Your task to perform on an android device: turn notification dots on Image 0: 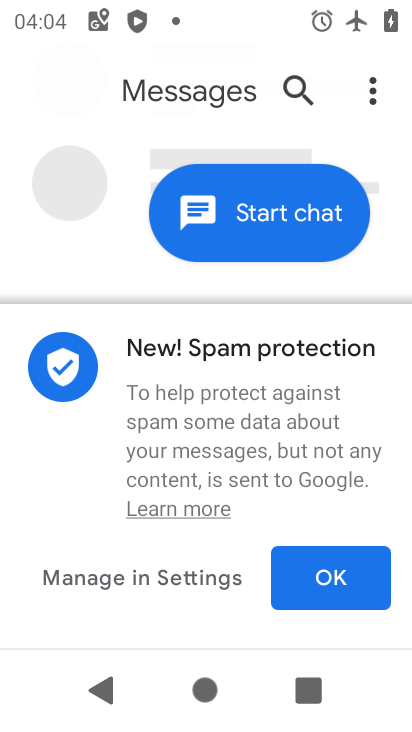
Step 0: press home button
Your task to perform on an android device: turn notification dots on Image 1: 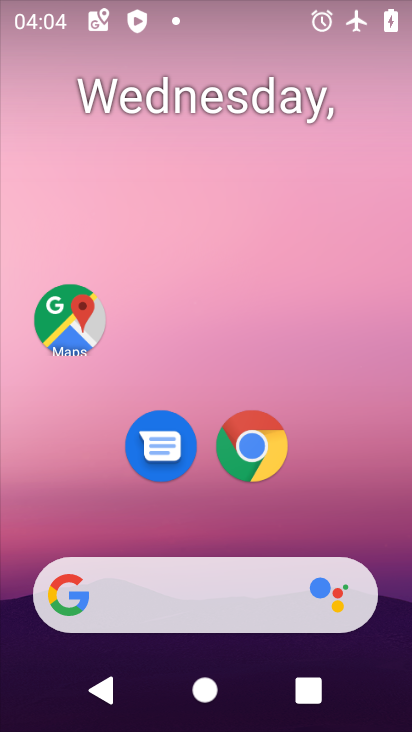
Step 1: drag from (216, 540) to (186, 168)
Your task to perform on an android device: turn notification dots on Image 2: 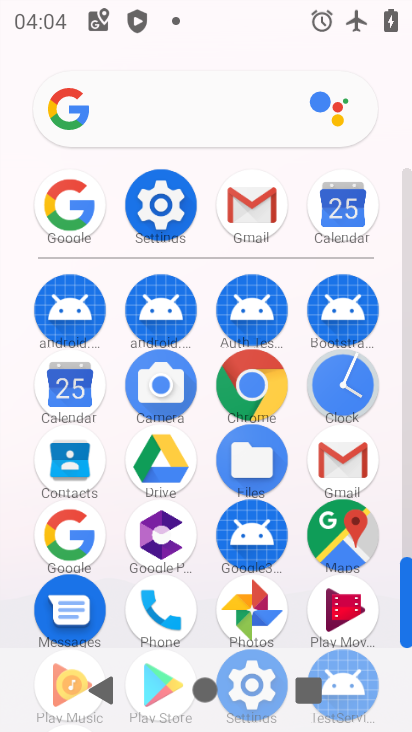
Step 2: click (168, 203)
Your task to perform on an android device: turn notification dots on Image 3: 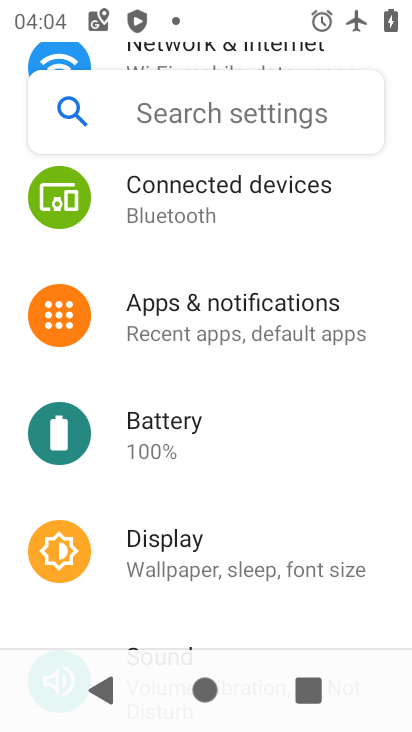
Step 3: click (221, 301)
Your task to perform on an android device: turn notification dots on Image 4: 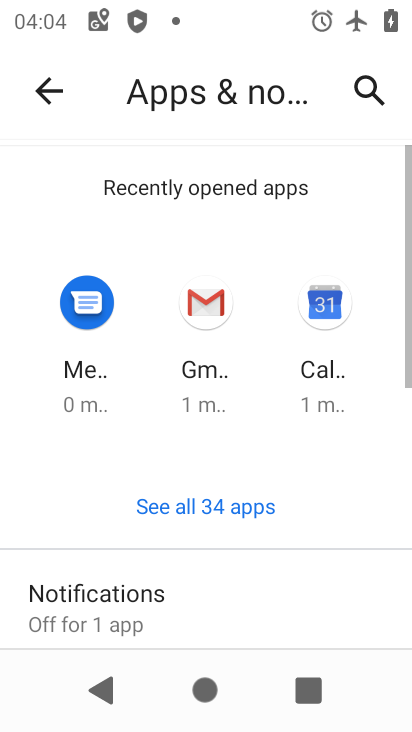
Step 4: click (209, 577)
Your task to perform on an android device: turn notification dots on Image 5: 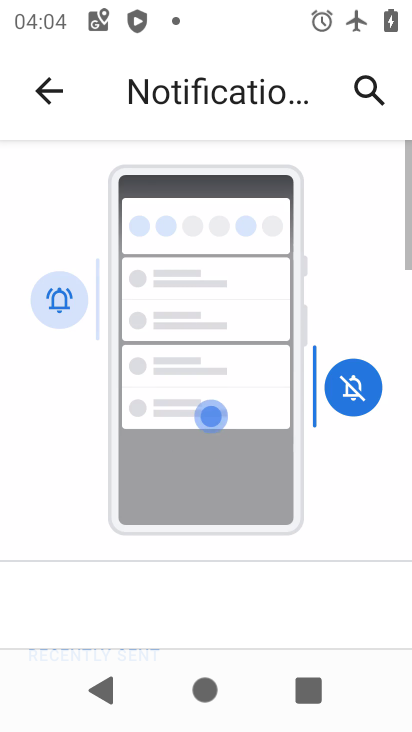
Step 5: drag from (207, 577) to (205, 266)
Your task to perform on an android device: turn notification dots on Image 6: 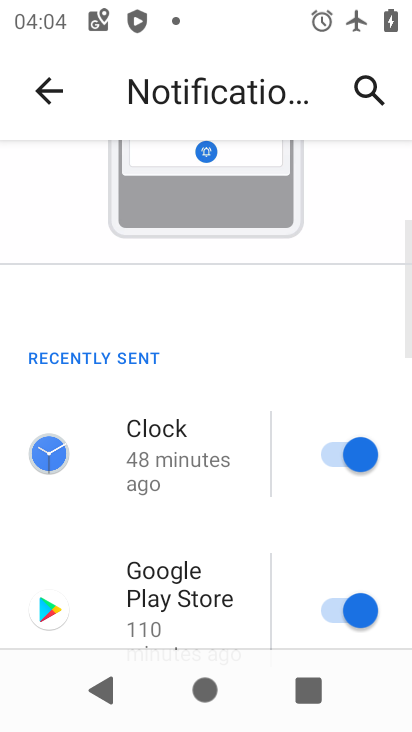
Step 6: drag from (192, 514) to (202, 237)
Your task to perform on an android device: turn notification dots on Image 7: 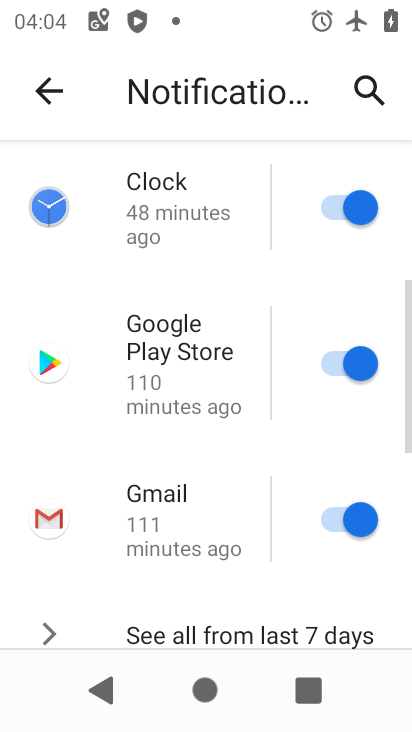
Step 7: drag from (200, 565) to (195, 275)
Your task to perform on an android device: turn notification dots on Image 8: 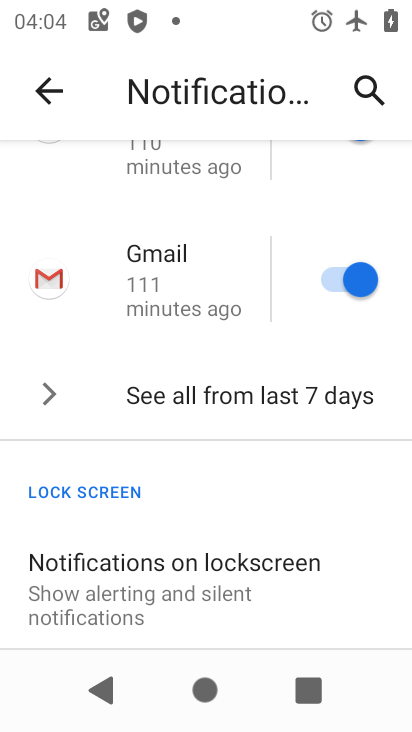
Step 8: drag from (189, 562) to (189, 334)
Your task to perform on an android device: turn notification dots on Image 9: 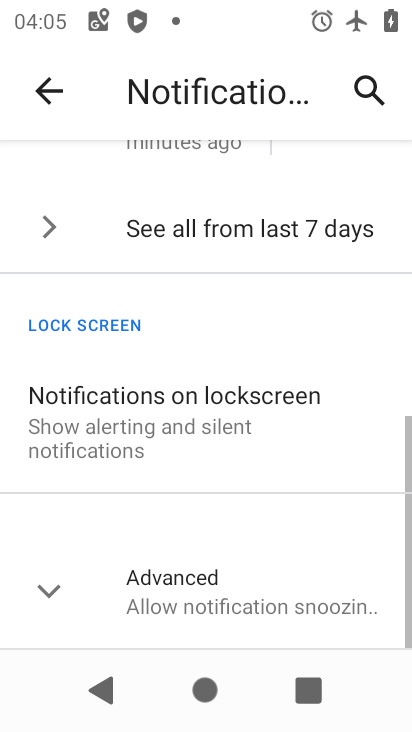
Step 9: drag from (188, 611) to (189, 369)
Your task to perform on an android device: turn notification dots on Image 10: 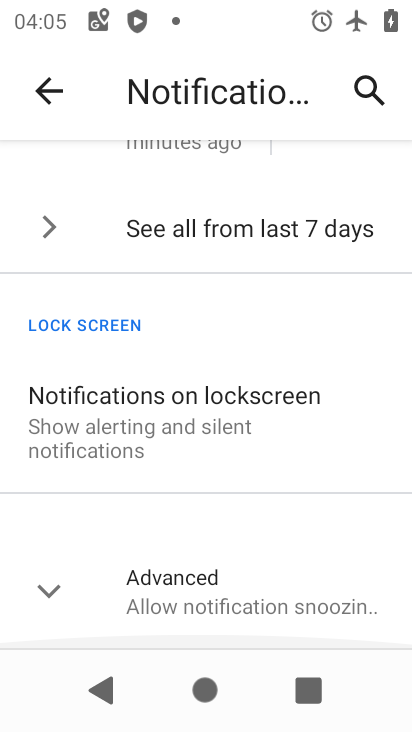
Step 10: click (194, 596)
Your task to perform on an android device: turn notification dots on Image 11: 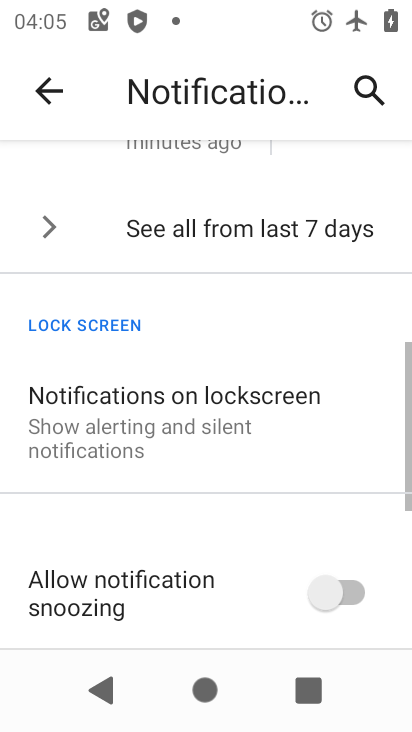
Step 11: drag from (194, 596) to (183, 307)
Your task to perform on an android device: turn notification dots on Image 12: 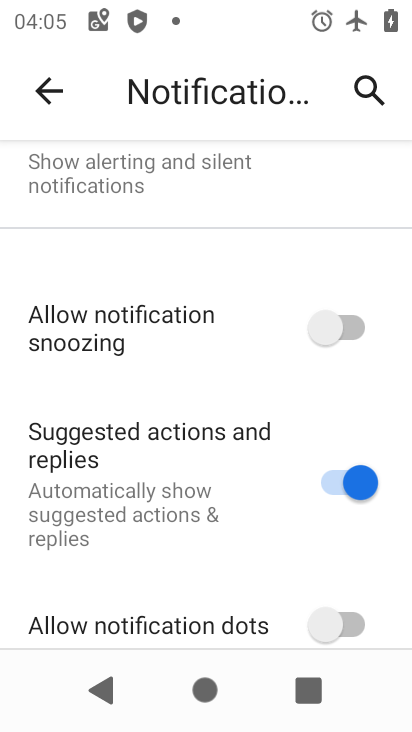
Step 12: drag from (202, 580) to (205, 383)
Your task to perform on an android device: turn notification dots on Image 13: 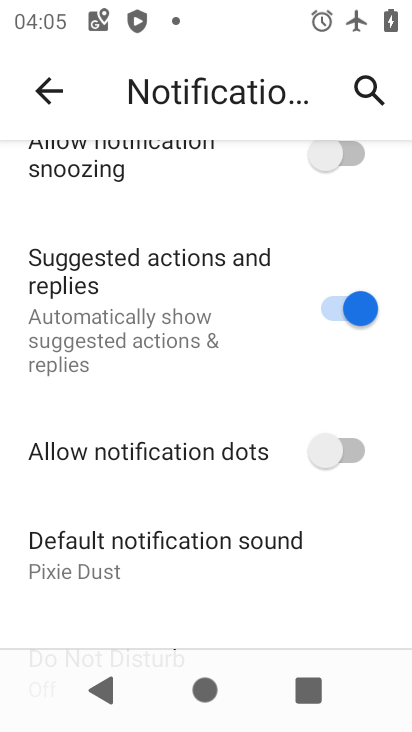
Step 13: click (347, 444)
Your task to perform on an android device: turn notification dots on Image 14: 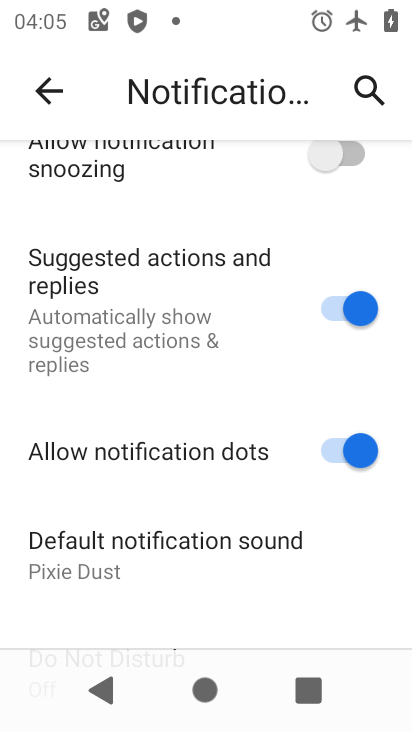
Step 14: task complete